Your task to perform on an android device: move a message to another label in the gmail app Image 0: 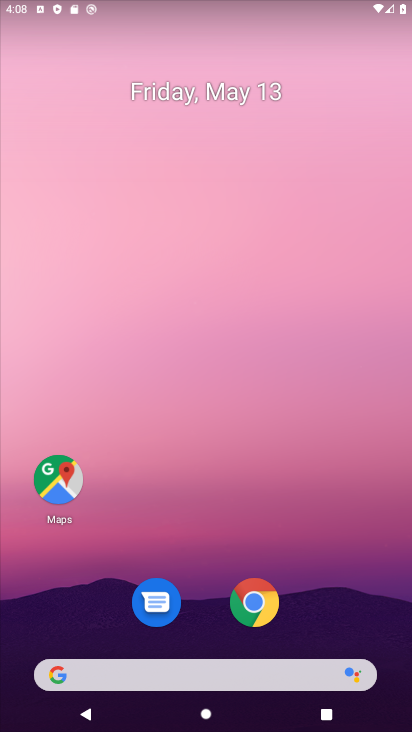
Step 0: drag from (186, 632) to (187, 251)
Your task to perform on an android device: move a message to another label in the gmail app Image 1: 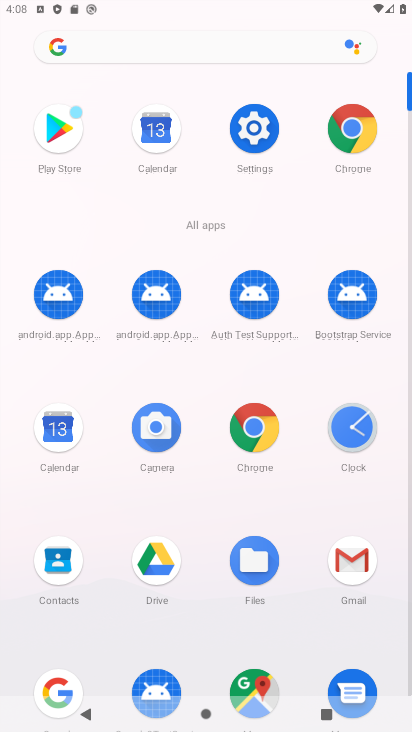
Step 1: click (350, 560)
Your task to perform on an android device: move a message to another label in the gmail app Image 2: 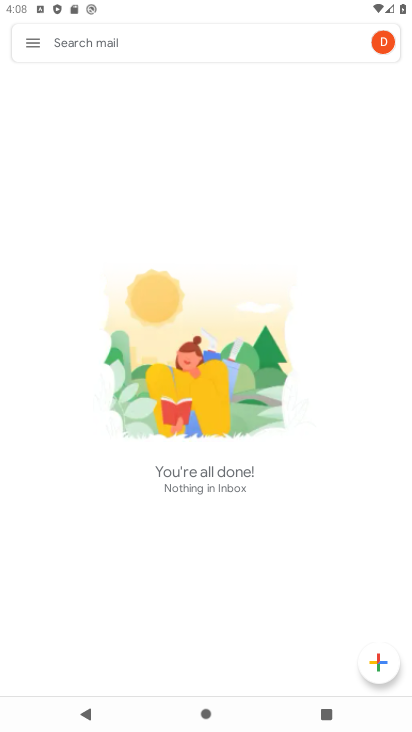
Step 2: click (308, 208)
Your task to perform on an android device: move a message to another label in the gmail app Image 3: 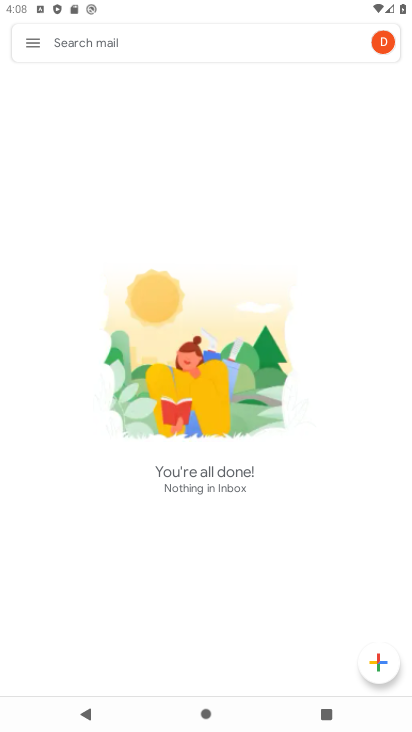
Step 3: task complete